Your task to perform on an android device: turn off notifications in google photos Image 0: 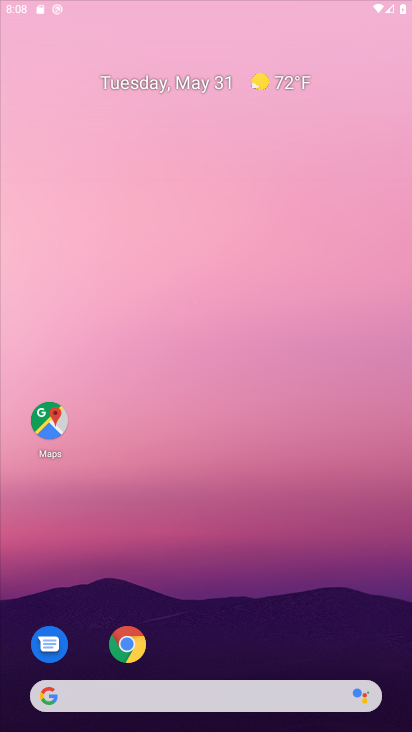
Step 0: press home button
Your task to perform on an android device: turn off notifications in google photos Image 1: 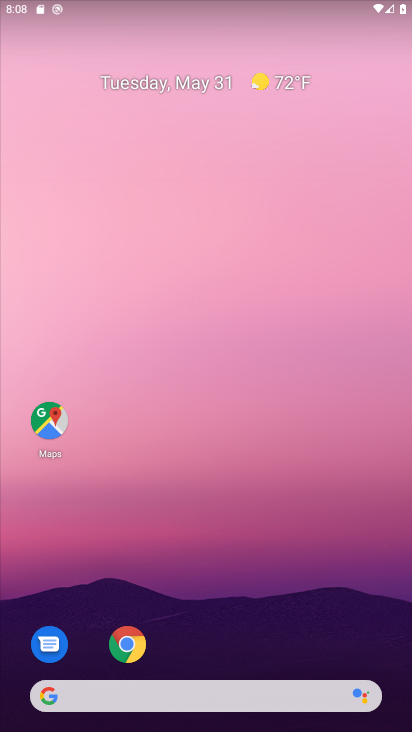
Step 1: press back button
Your task to perform on an android device: turn off notifications in google photos Image 2: 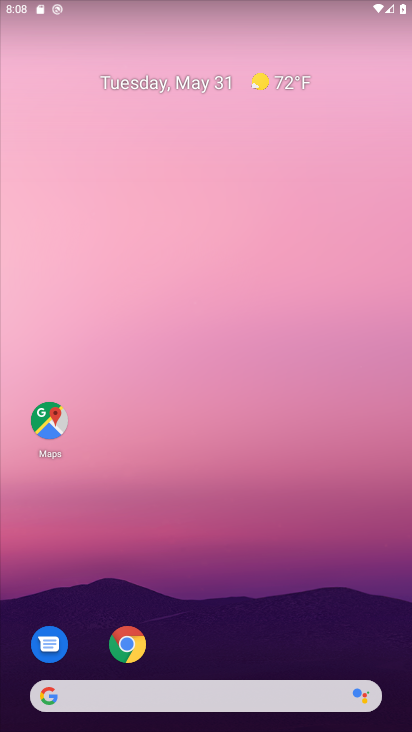
Step 2: drag from (220, 652) to (220, 216)
Your task to perform on an android device: turn off notifications in google photos Image 3: 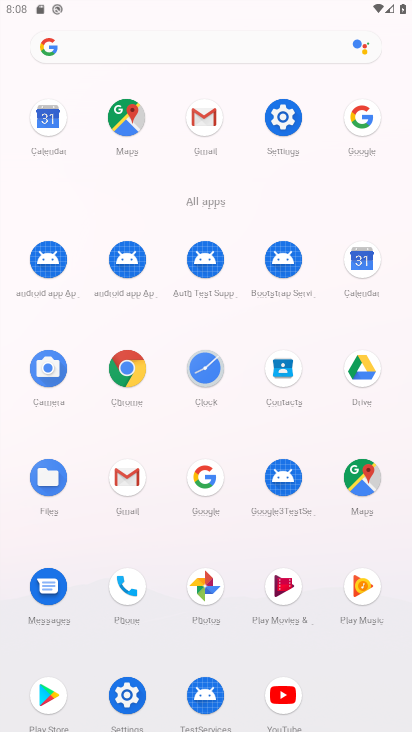
Step 3: click (206, 578)
Your task to perform on an android device: turn off notifications in google photos Image 4: 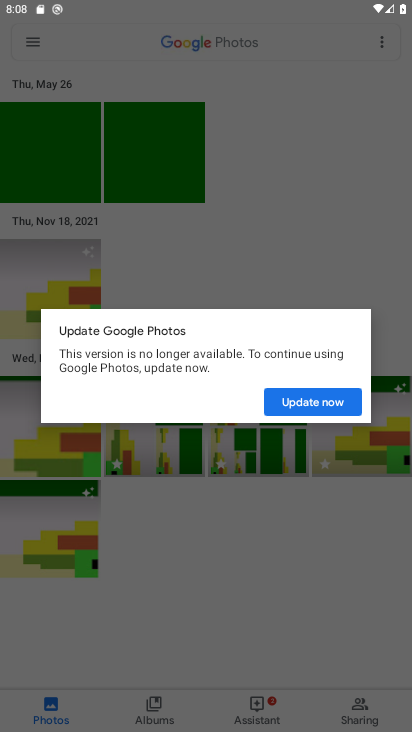
Step 4: click (322, 397)
Your task to perform on an android device: turn off notifications in google photos Image 5: 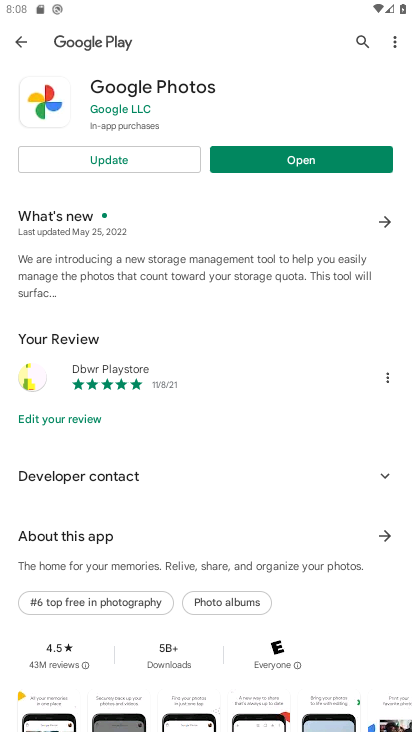
Step 5: click (116, 162)
Your task to perform on an android device: turn off notifications in google photos Image 6: 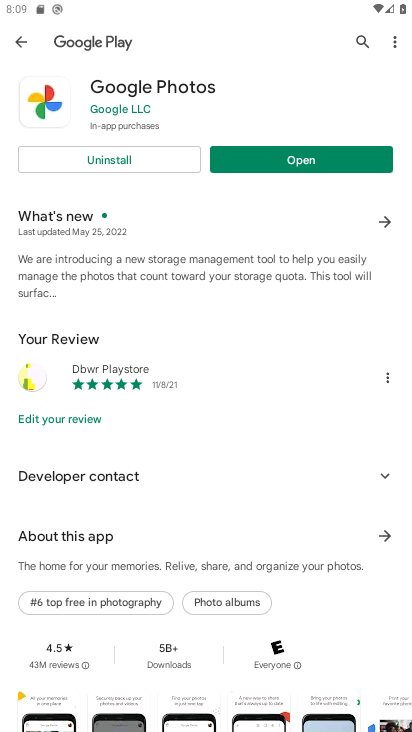
Step 6: click (292, 158)
Your task to perform on an android device: turn off notifications in google photos Image 7: 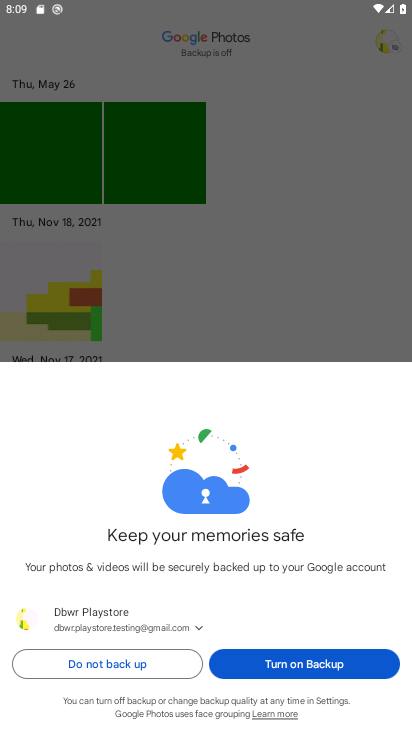
Step 7: click (260, 669)
Your task to perform on an android device: turn off notifications in google photos Image 8: 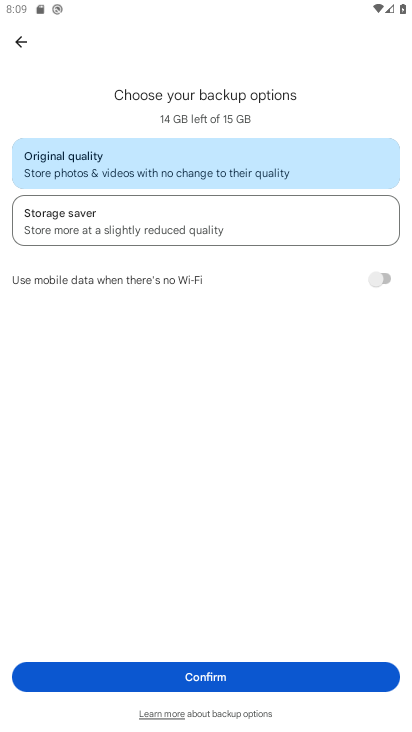
Step 8: click (219, 675)
Your task to perform on an android device: turn off notifications in google photos Image 9: 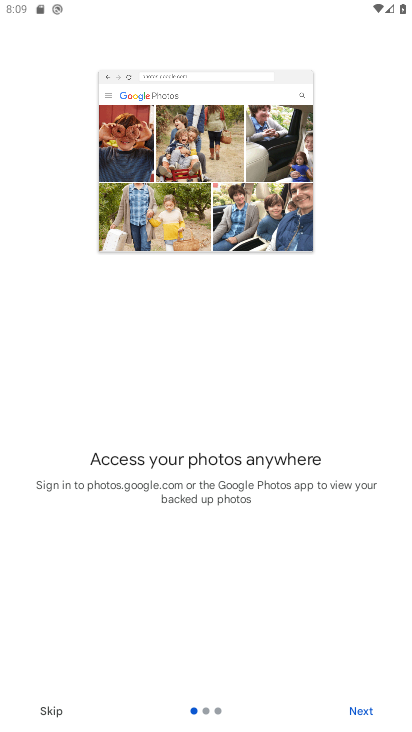
Step 9: click (357, 708)
Your task to perform on an android device: turn off notifications in google photos Image 10: 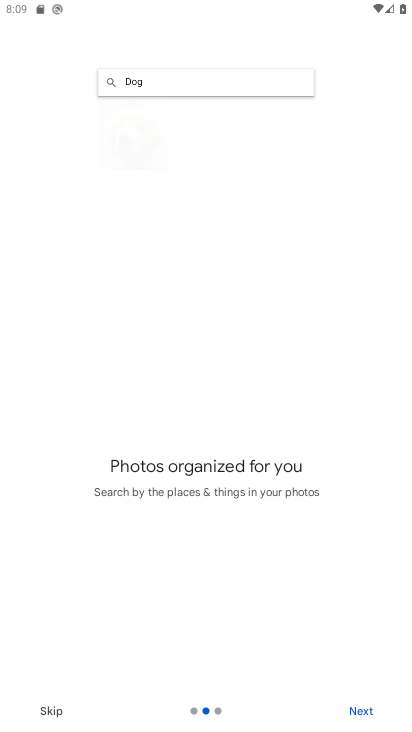
Step 10: click (357, 708)
Your task to perform on an android device: turn off notifications in google photos Image 11: 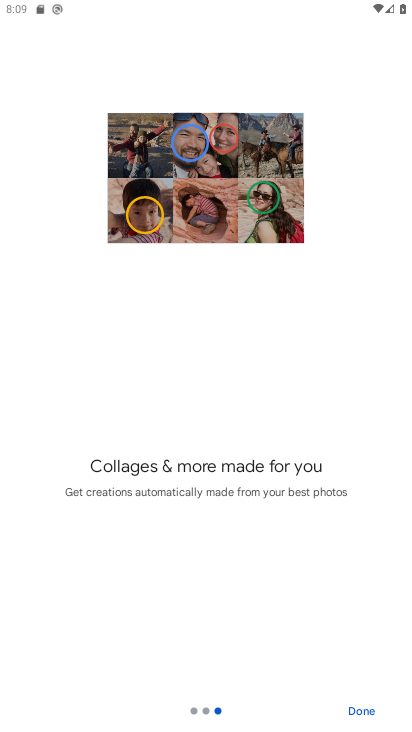
Step 11: click (357, 708)
Your task to perform on an android device: turn off notifications in google photos Image 12: 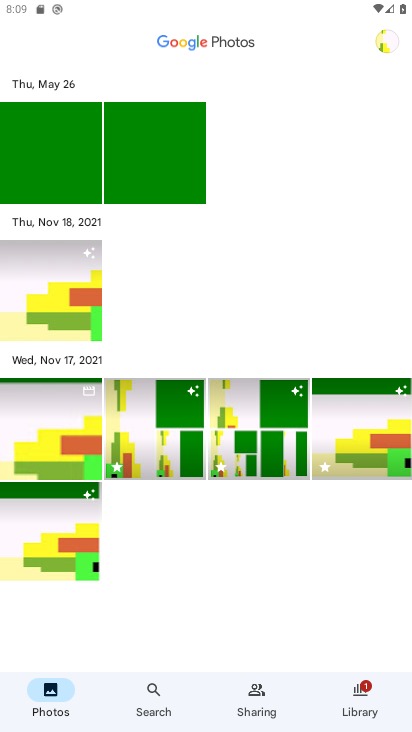
Step 12: click (373, 38)
Your task to perform on an android device: turn off notifications in google photos Image 13: 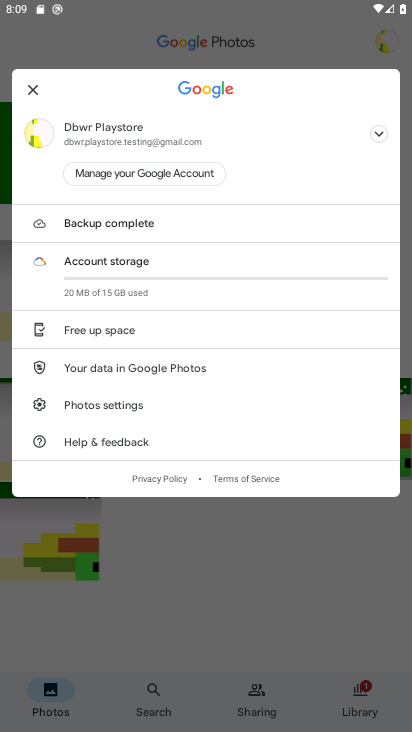
Step 13: click (152, 399)
Your task to perform on an android device: turn off notifications in google photos Image 14: 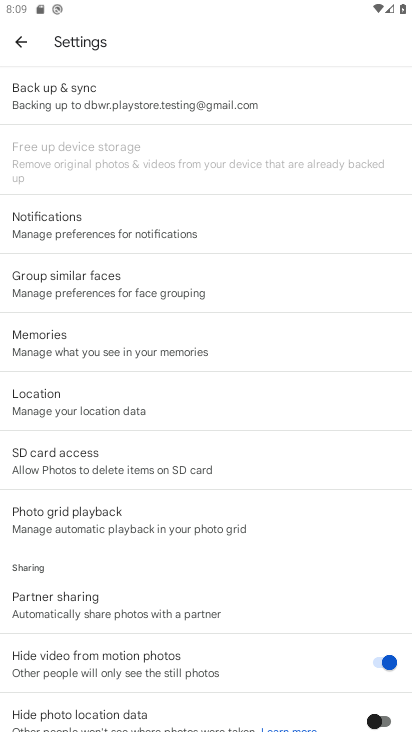
Step 14: click (95, 212)
Your task to perform on an android device: turn off notifications in google photos Image 15: 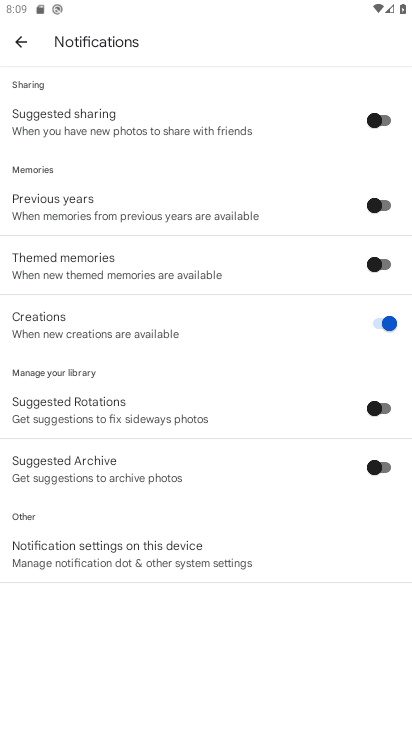
Step 15: click (194, 550)
Your task to perform on an android device: turn off notifications in google photos Image 16: 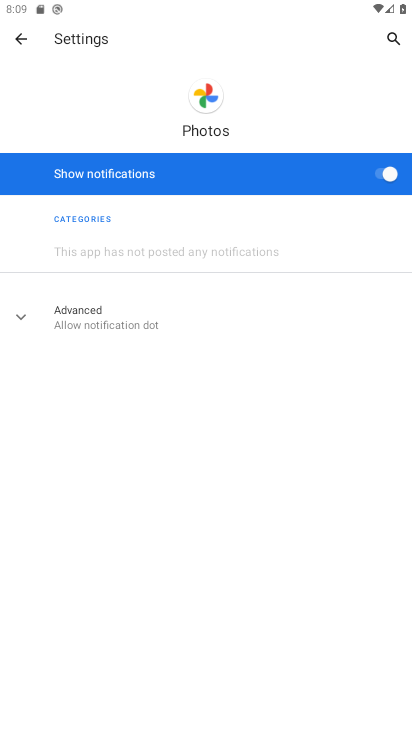
Step 16: click (381, 172)
Your task to perform on an android device: turn off notifications in google photos Image 17: 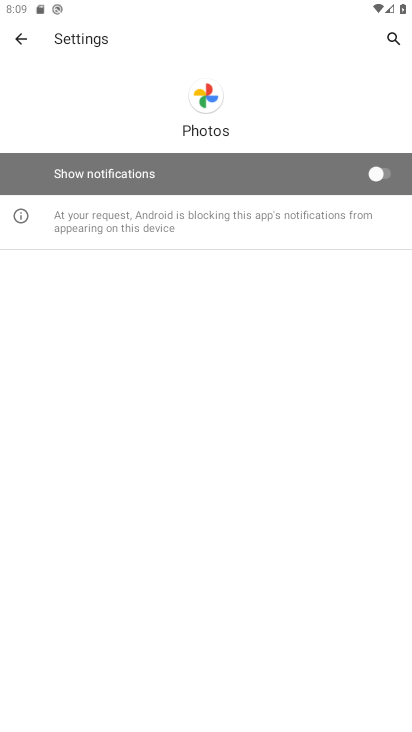
Step 17: task complete